Your task to perform on an android device: create a new album in the google photos Image 0: 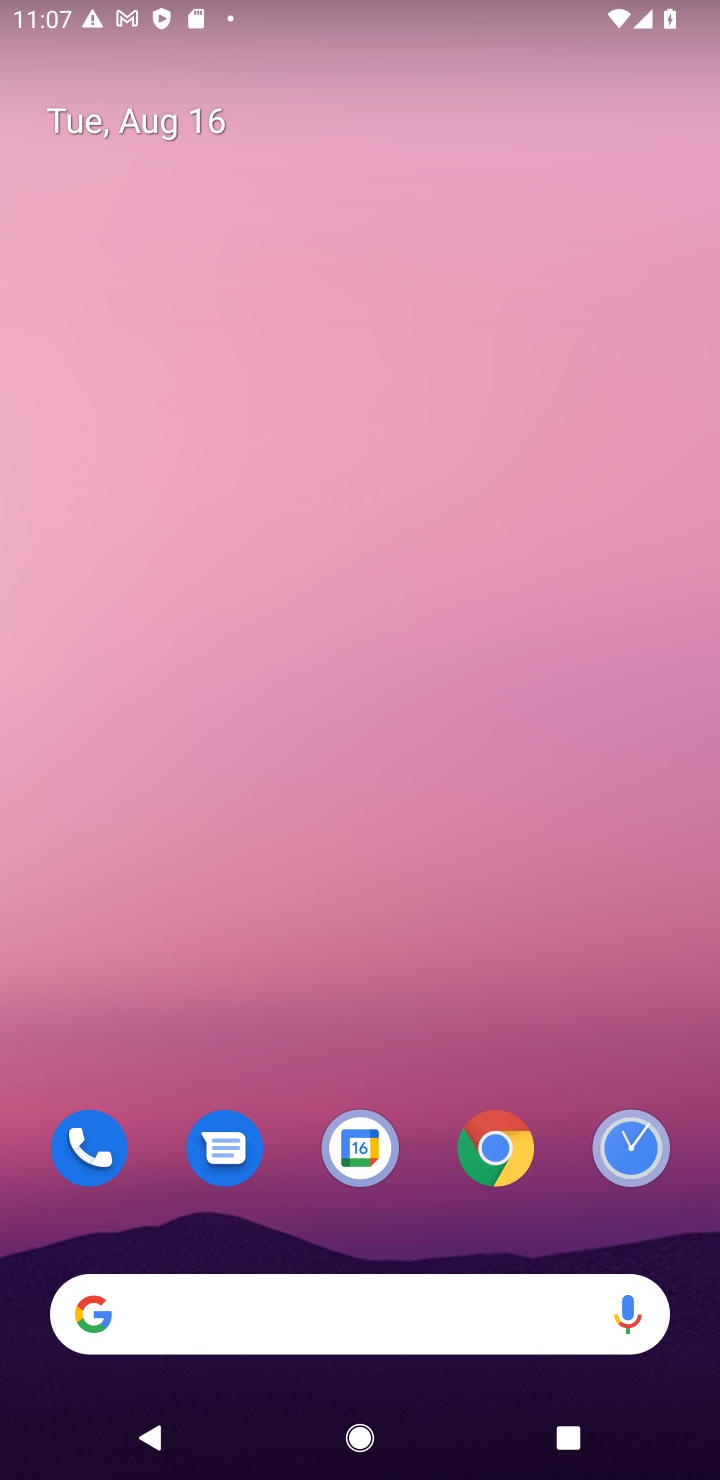
Step 0: press home button
Your task to perform on an android device: create a new album in the google photos Image 1: 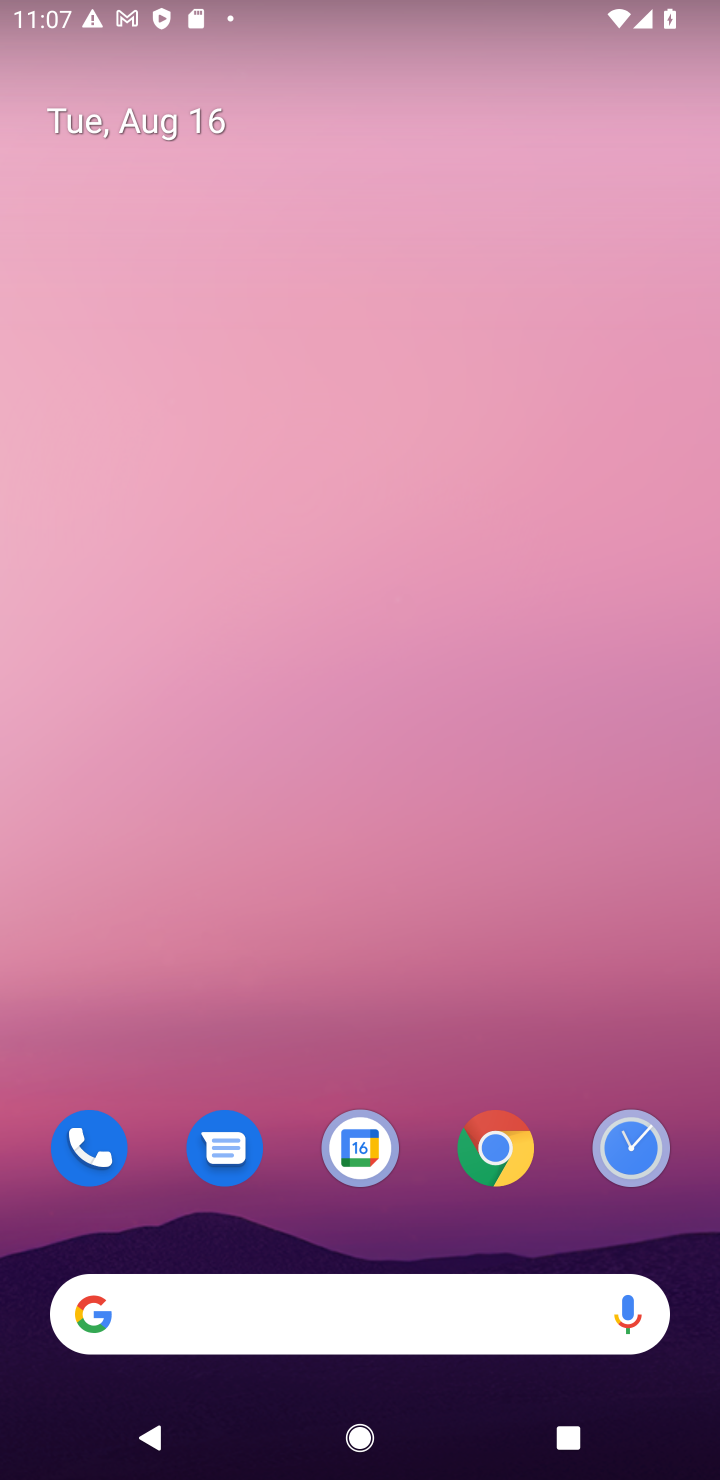
Step 1: drag from (244, 1181) to (561, 214)
Your task to perform on an android device: create a new album in the google photos Image 2: 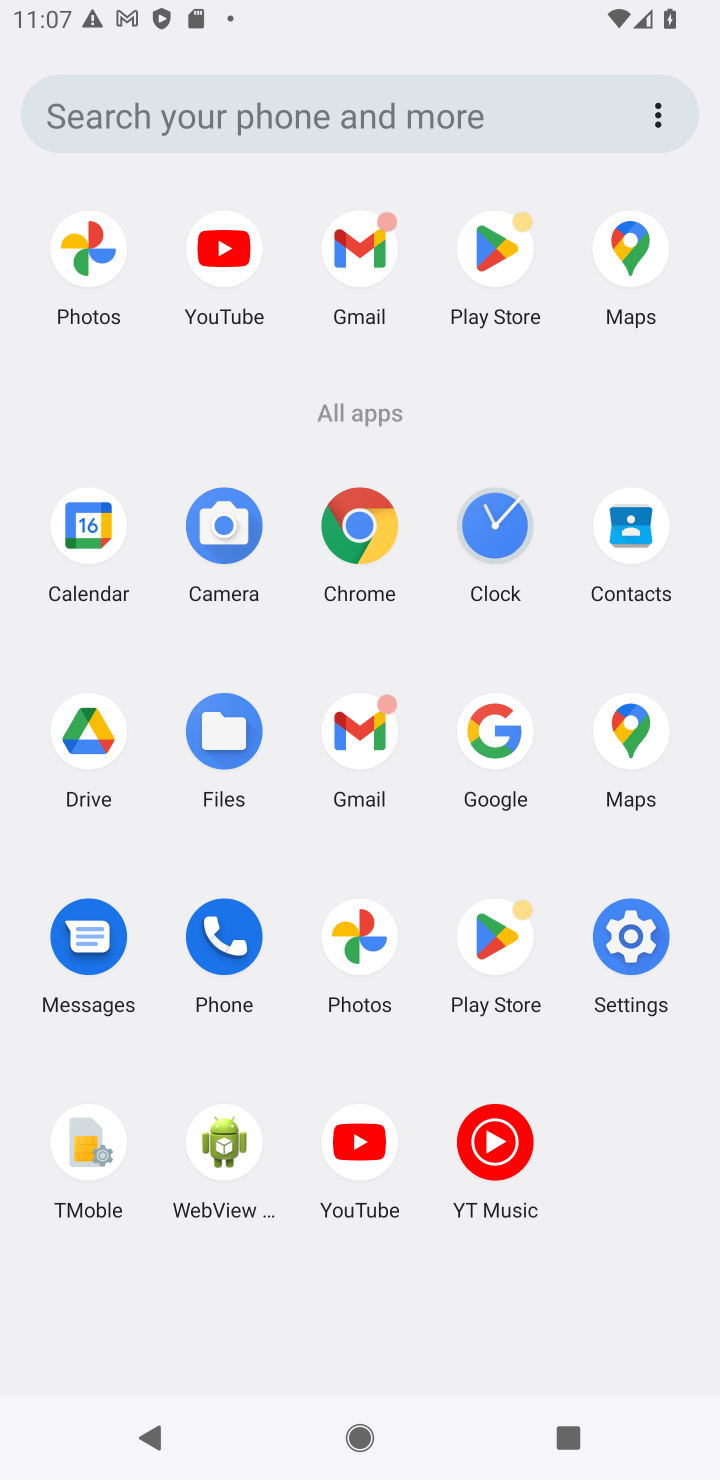
Step 2: click (66, 529)
Your task to perform on an android device: create a new album in the google photos Image 3: 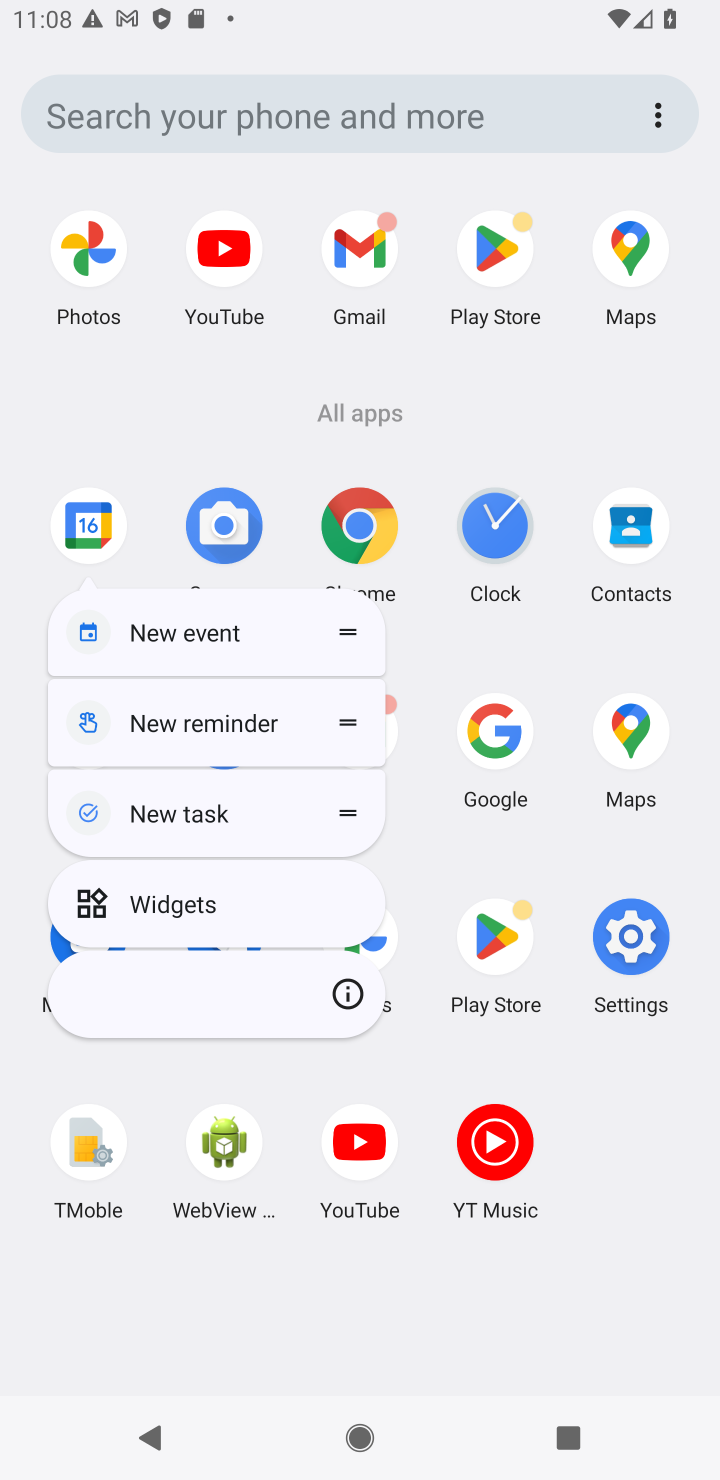
Step 3: click (206, 1297)
Your task to perform on an android device: create a new album in the google photos Image 4: 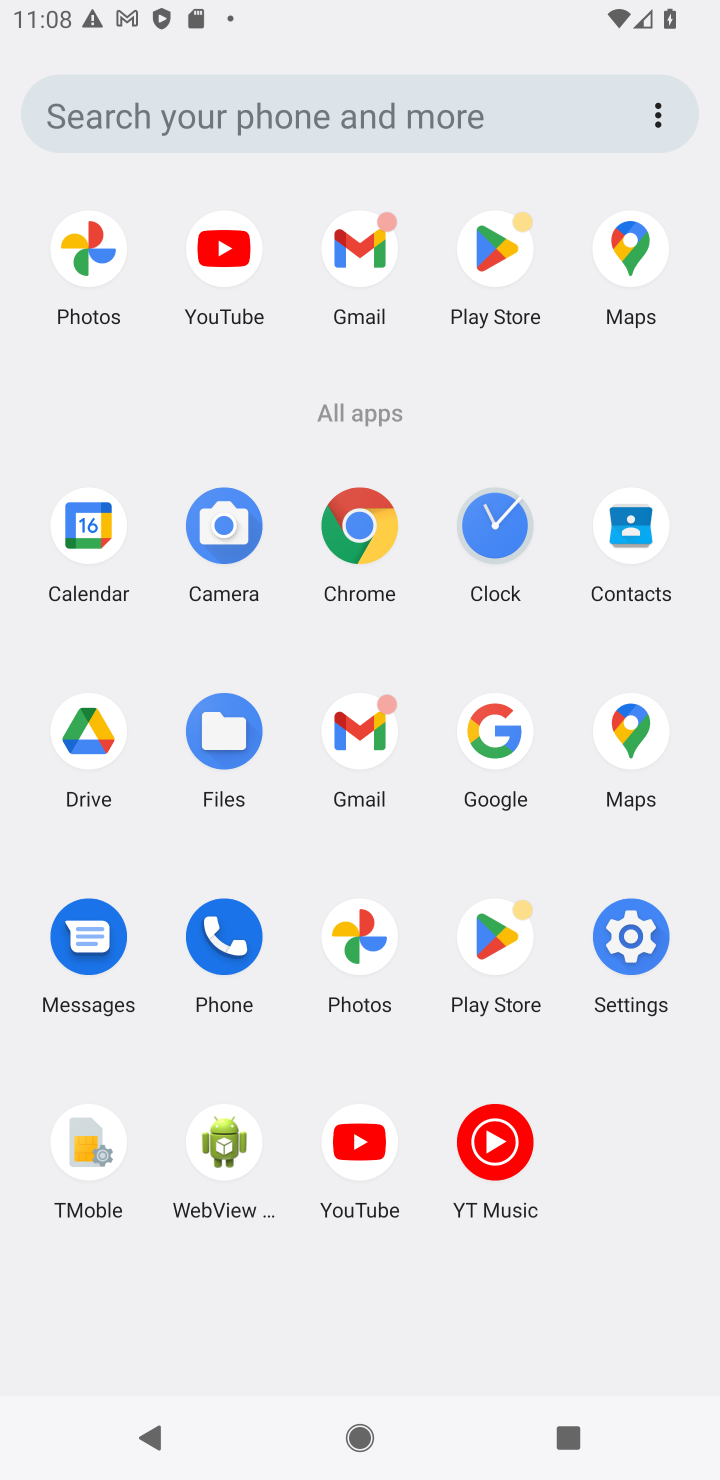
Step 4: click (372, 942)
Your task to perform on an android device: create a new album in the google photos Image 5: 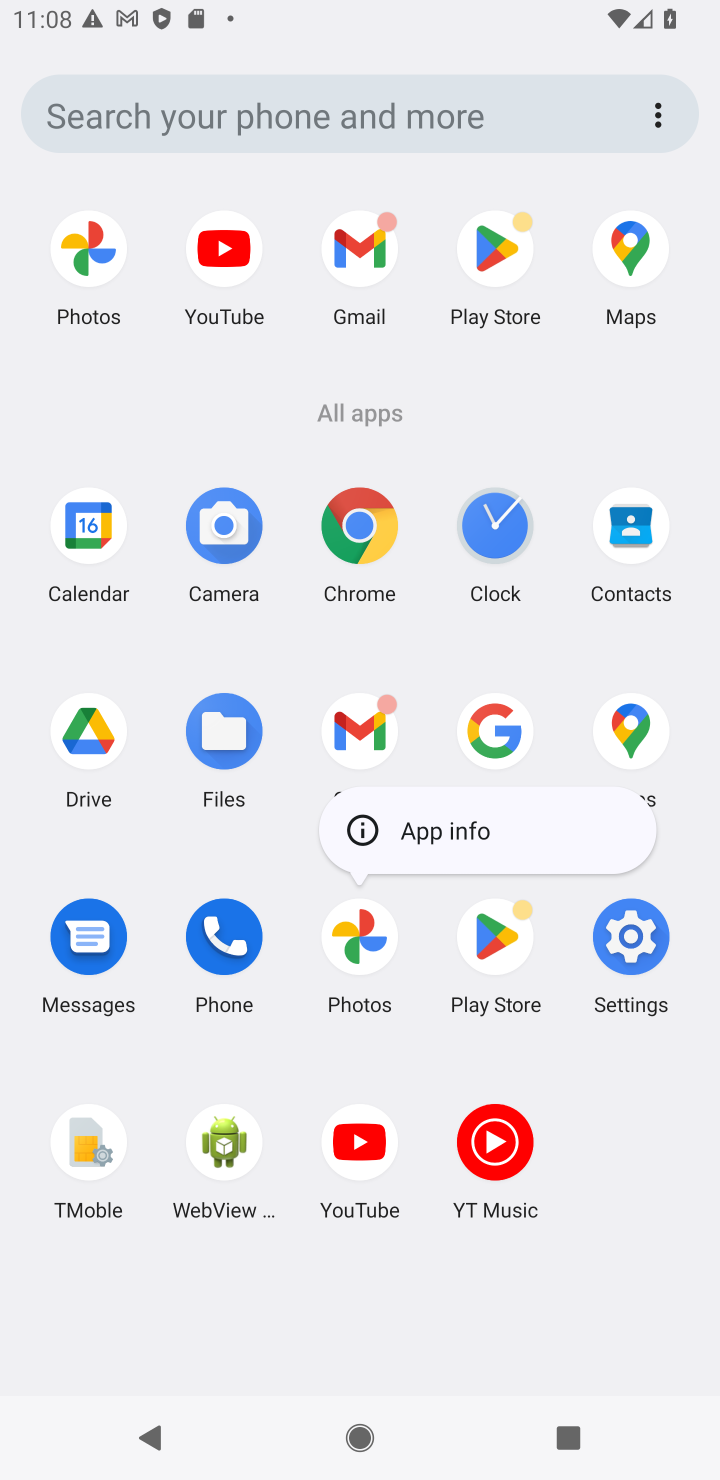
Step 5: click (372, 942)
Your task to perform on an android device: create a new album in the google photos Image 6: 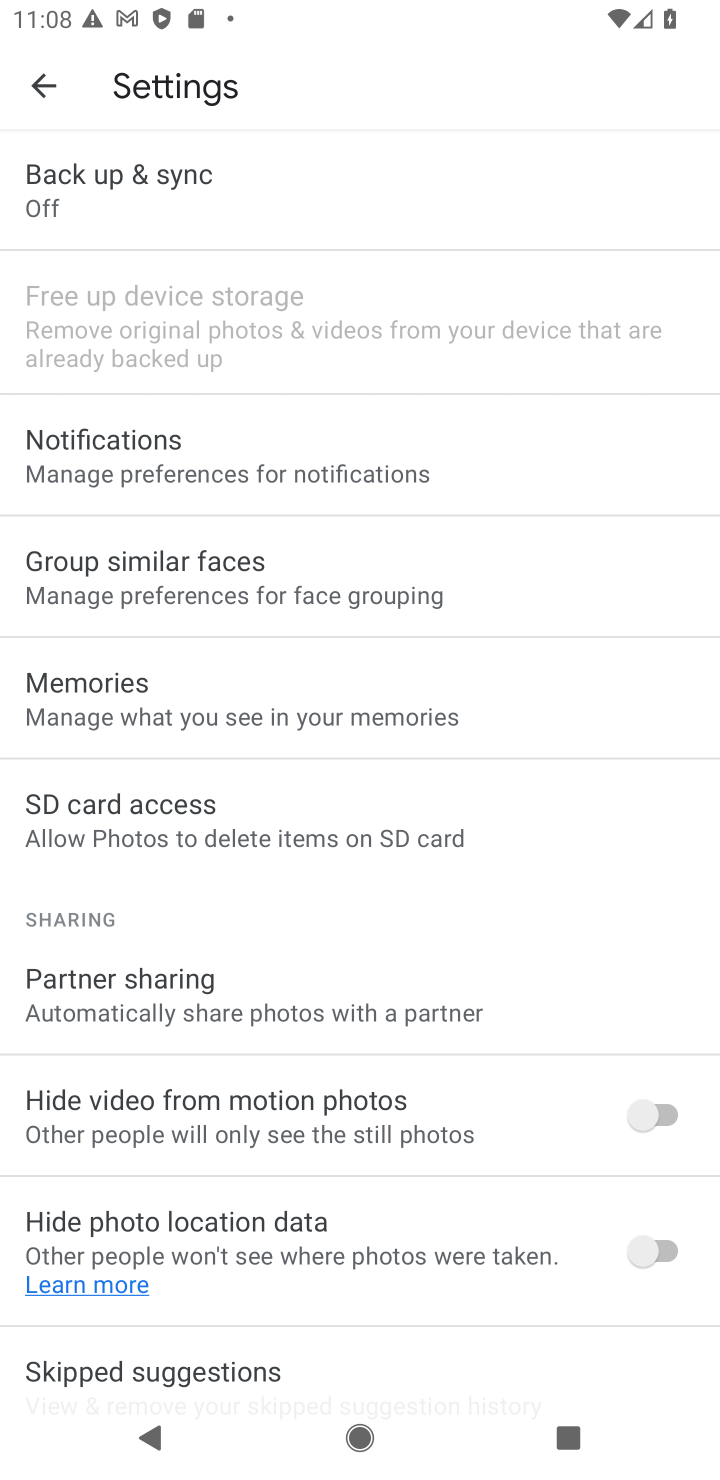
Step 6: click (38, 76)
Your task to perform on an android device: create a new album in the google photos Image 7: 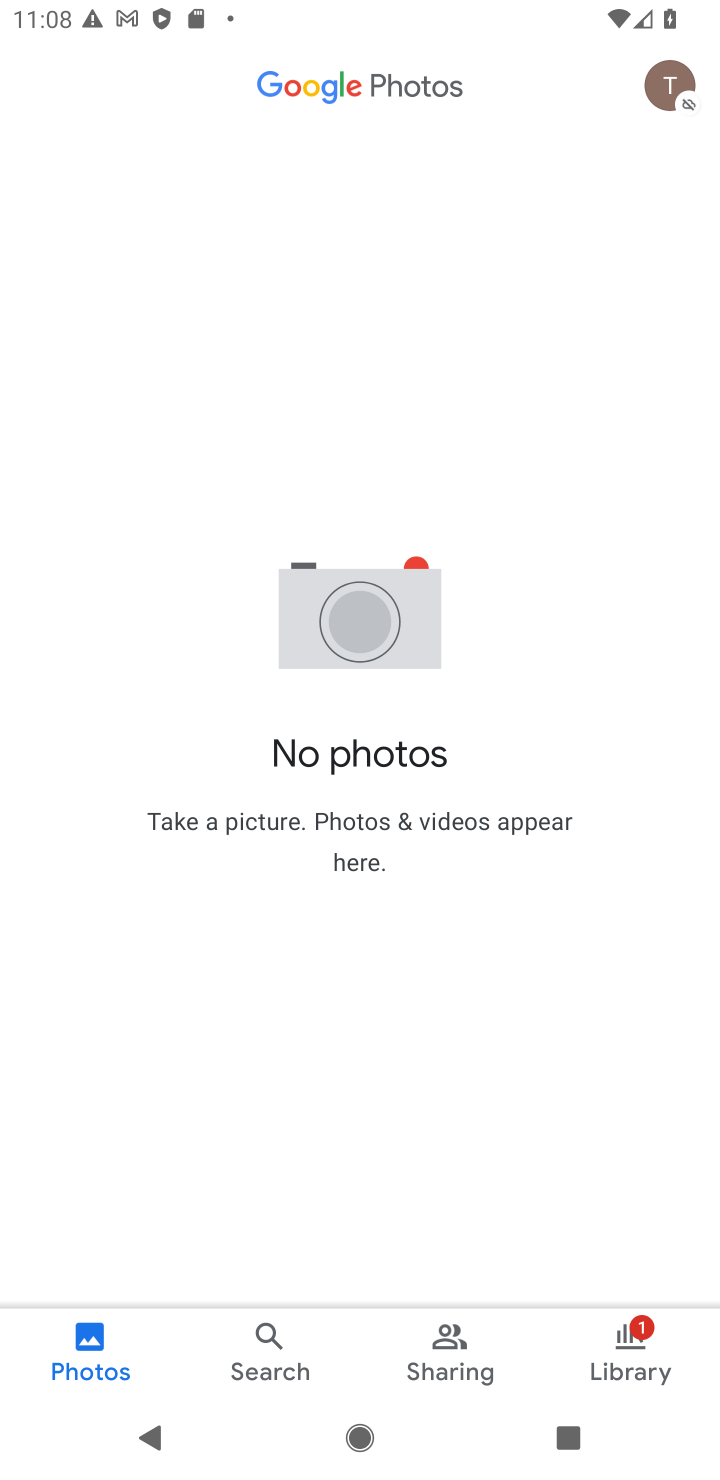
Step 7: click (612, 1274)
Your task to perform on an android device: create a new album in the google photos Image 8: 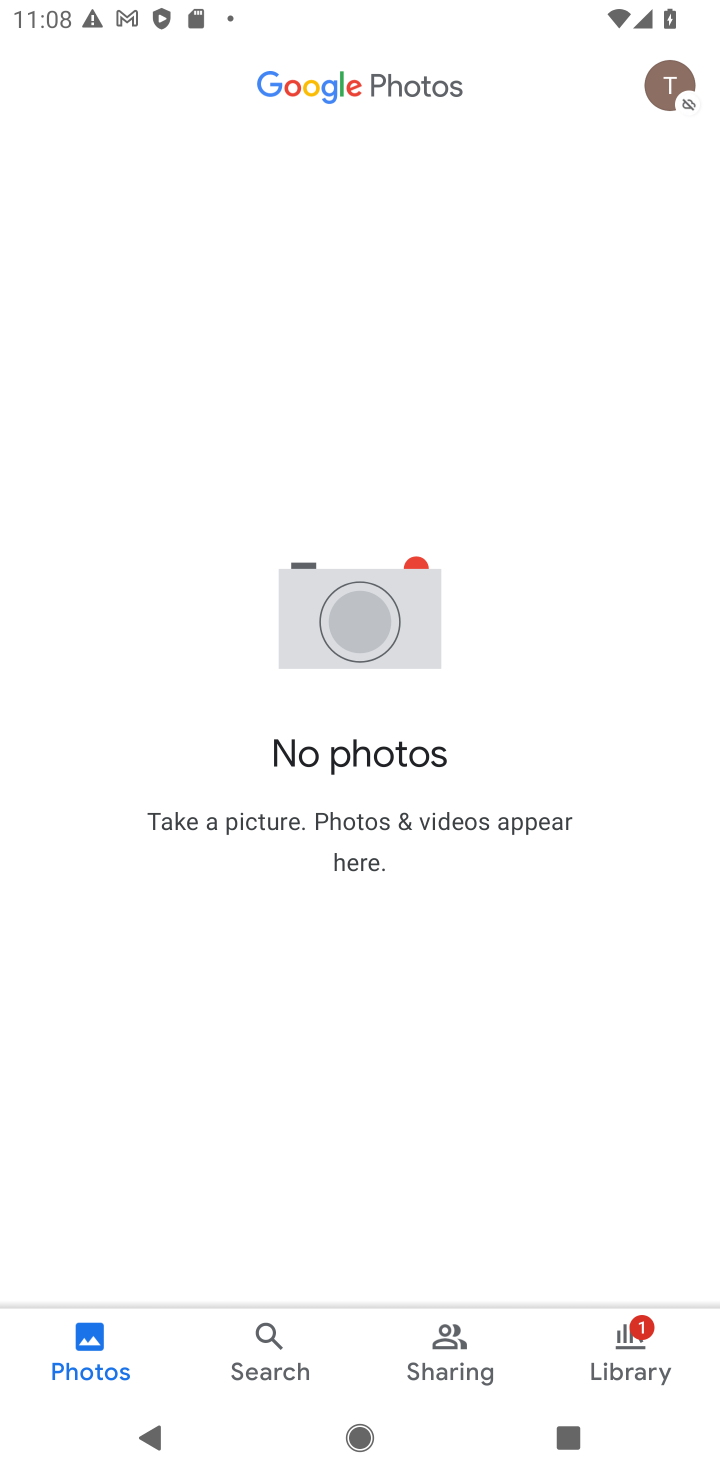
Step 8: press home button
Your task to perform on an android device: create a new album in the google photos Image 9: 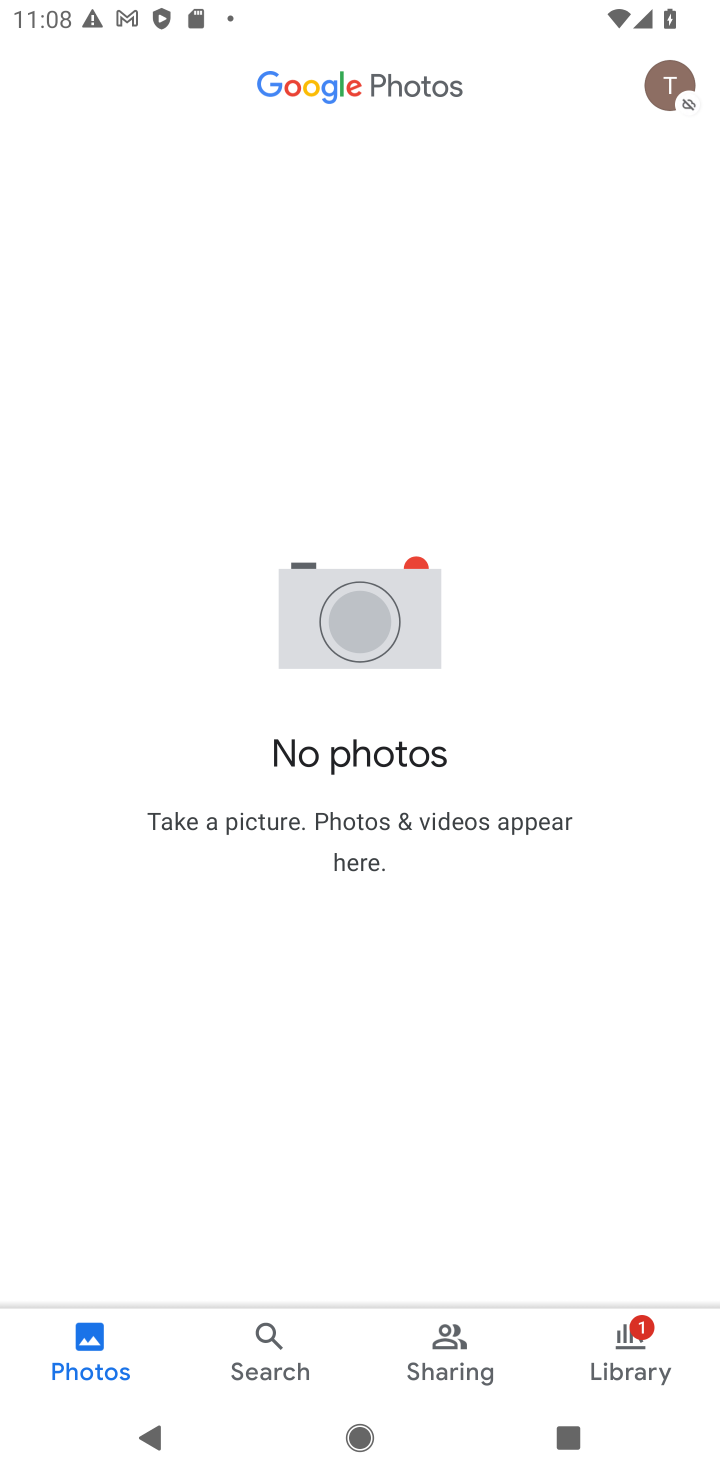
Step 9: press home button
Your task to perform on an android device: create a new album in the google photos Image 10: 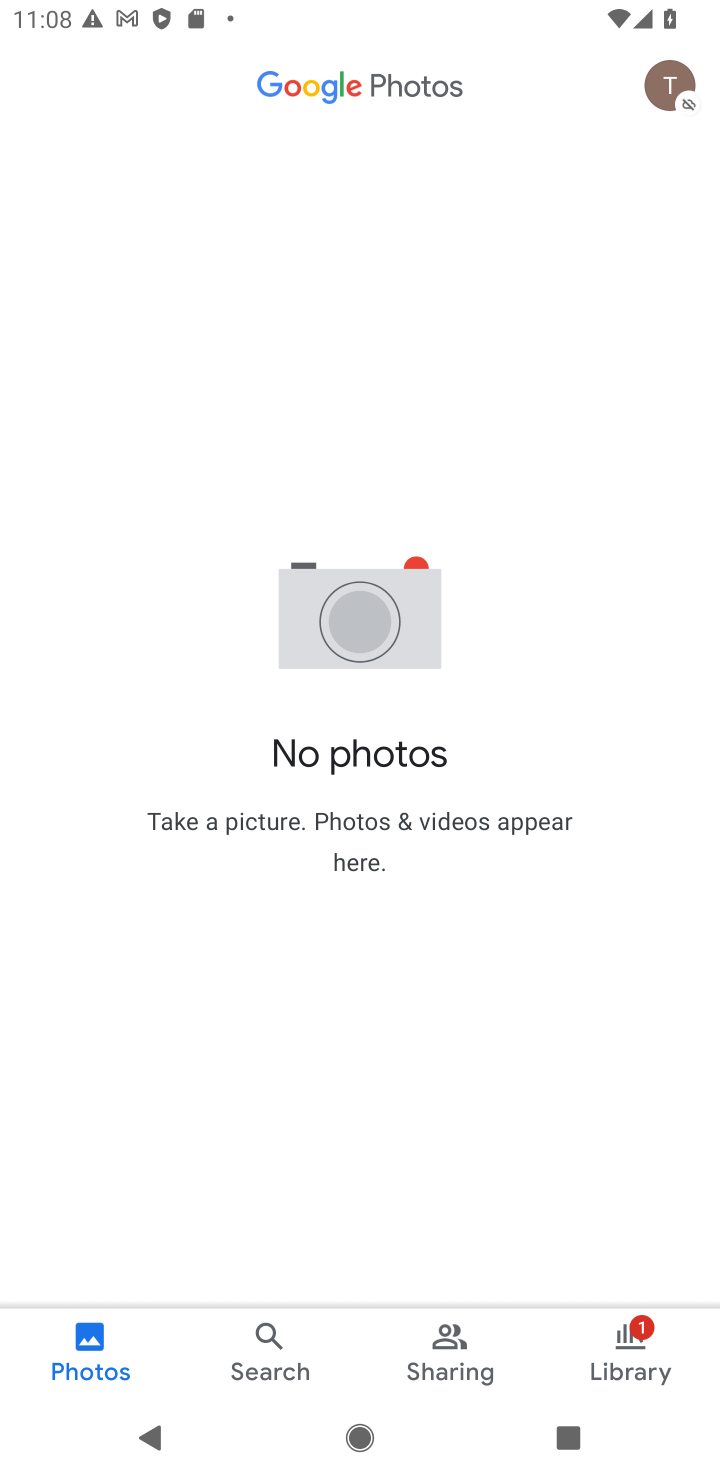
Step 10: press home button
Your task to perform on an android device: create a new album in the google photos Image 11: 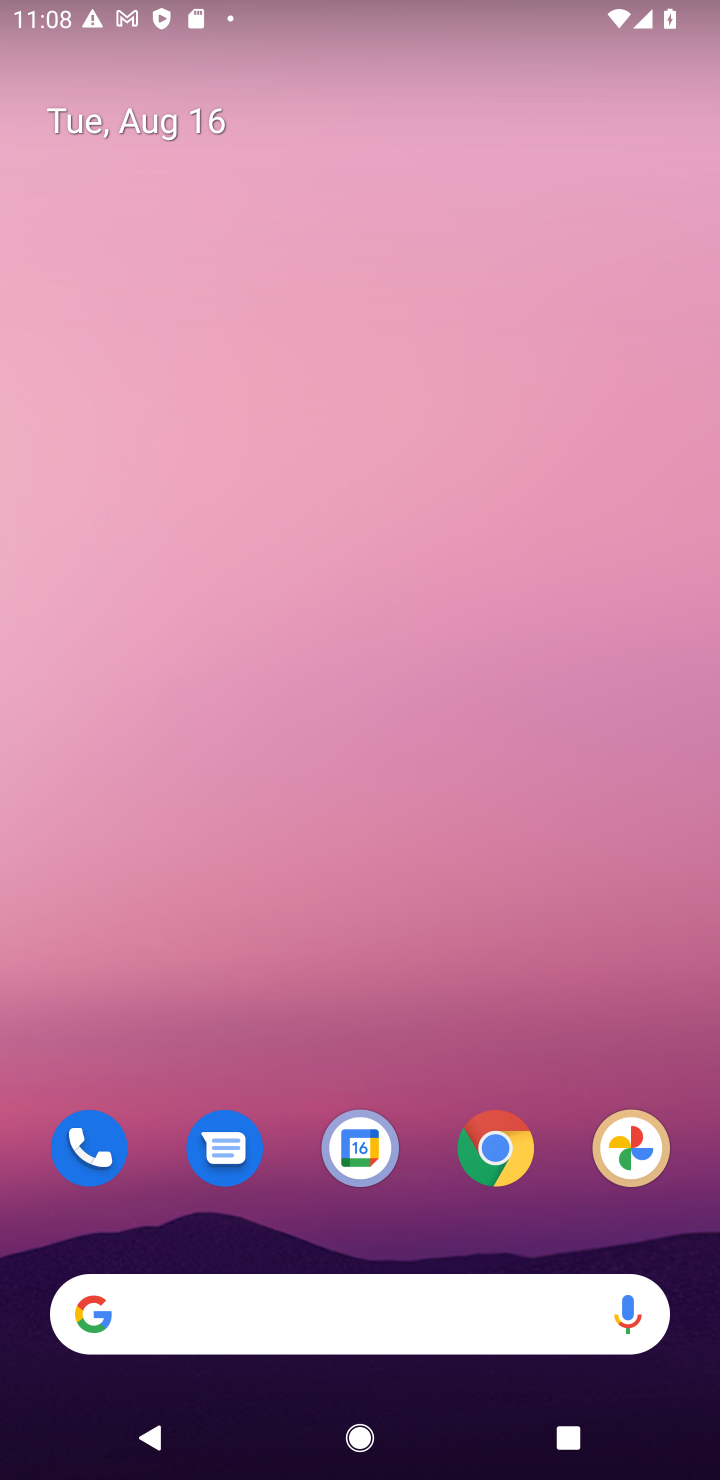
Step 11: drag from (510, 1322) to (518, 211)
Your task to perform on an android device: create a new album in the google photos Image 12: 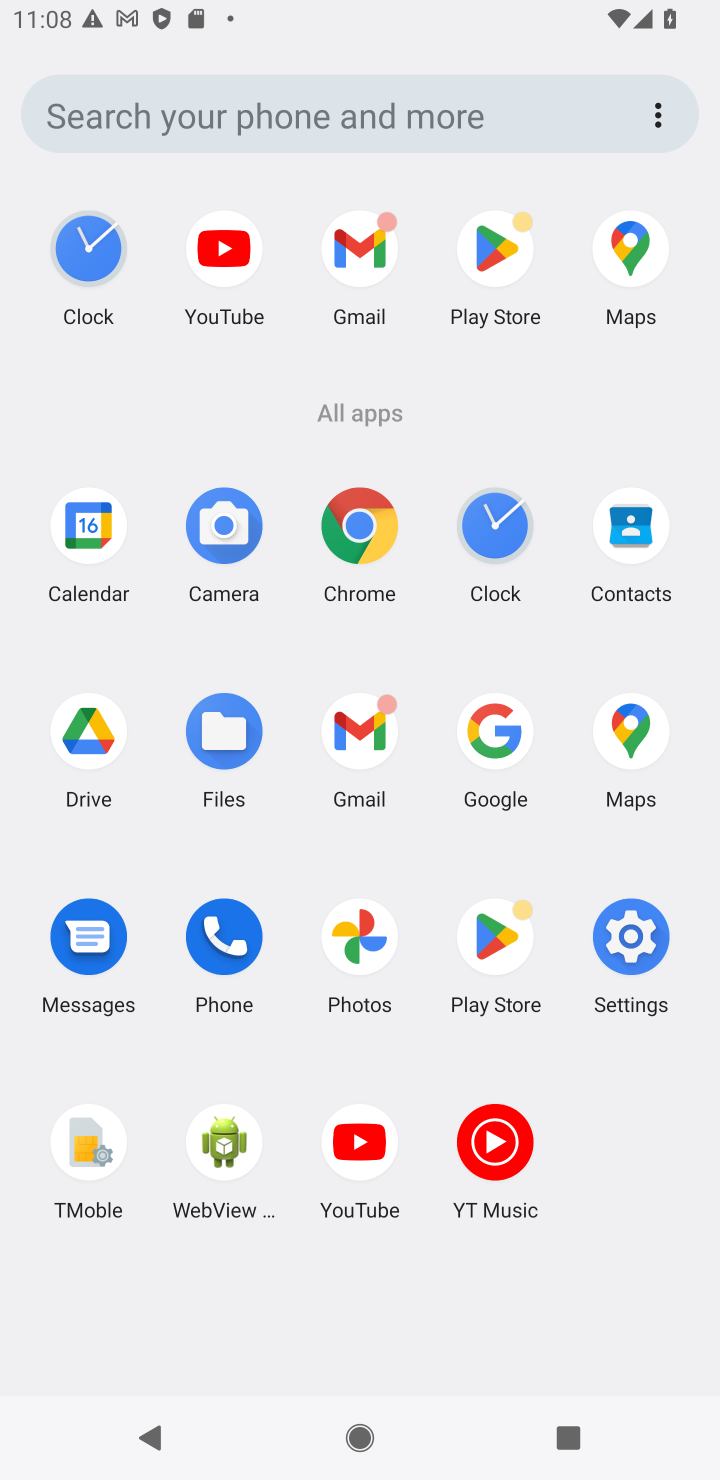
Step 12: click (366, 933)
Your task to perform on an android device: create a new album in the google photos Image 13: 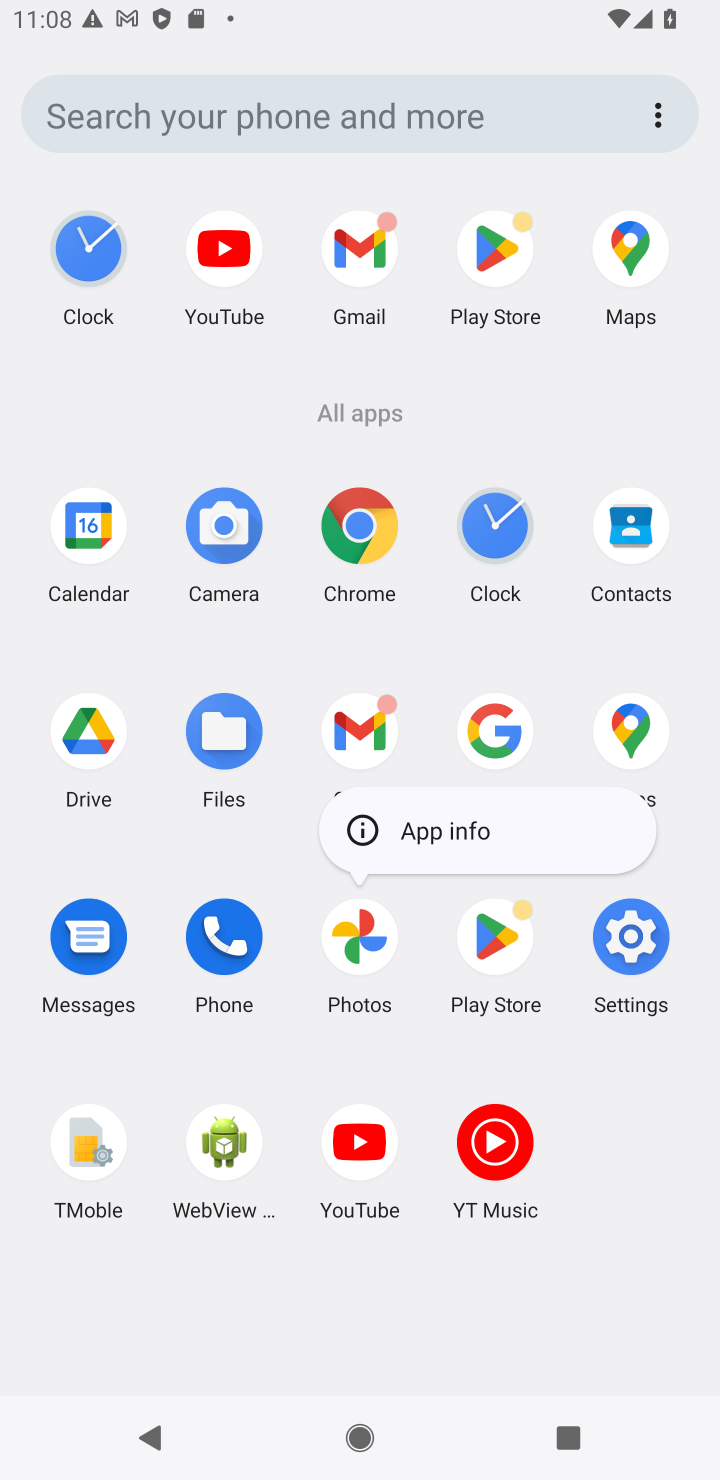
Step 13: click (357, 949)
Your task to perform on an android device: create a new album in the google photos Image 14: 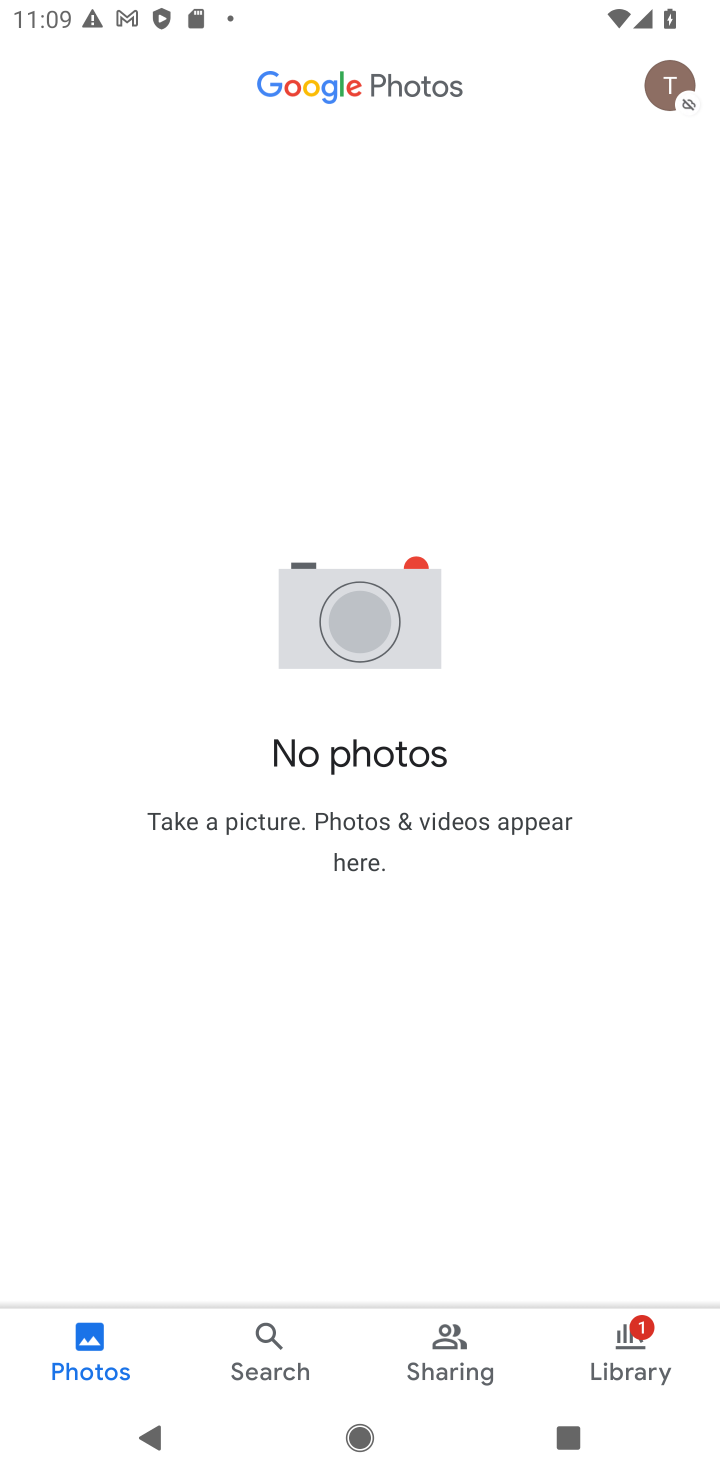
Step 14: task complete